Your task to perform on an android device: turn on bluetooth scan Image 0: 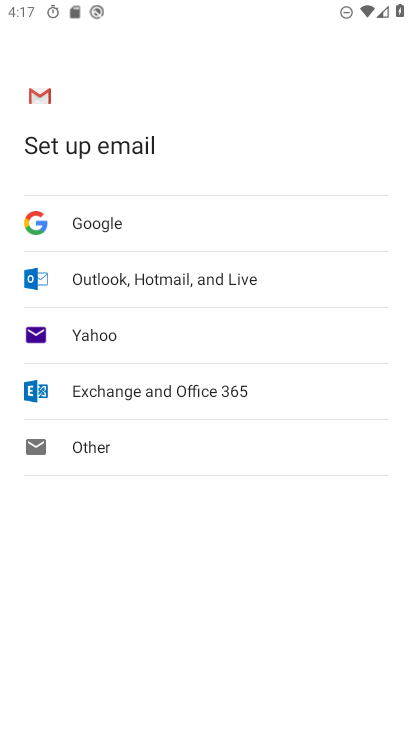
Step 0: press home button
Your task to perform on an android device: turn on bluetooth scan Image 1: 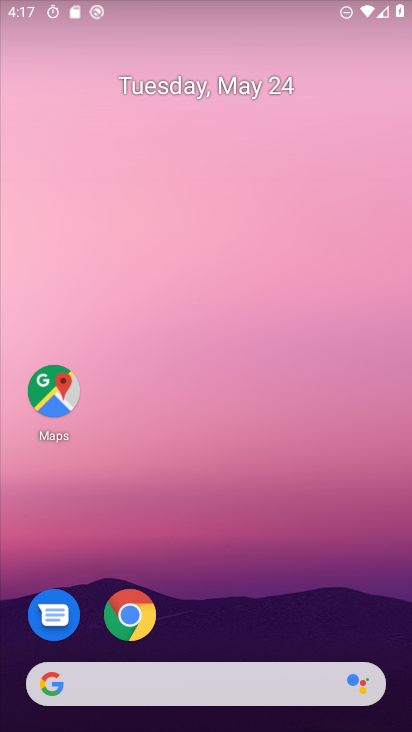
Step 1: drag from (239, 648) to (324, 180)
Your task to perform on an android device: turn on bluetooth scan Image 2: 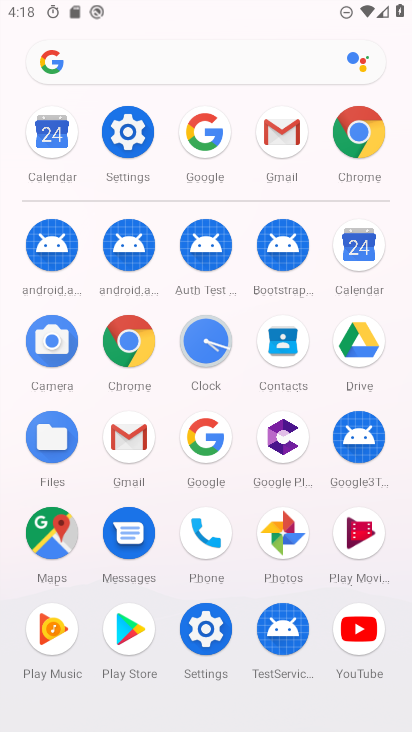
Step 2: click (115, 148)
Your task to perform on an android device: turn on bluetooth scan Image 3: 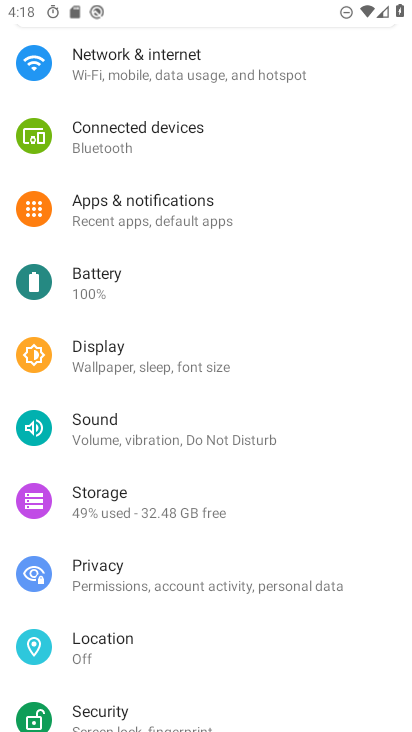
Step 3: click (160, 142)
Your task to perform on an android device: turn on bluetooth scan Image 4: 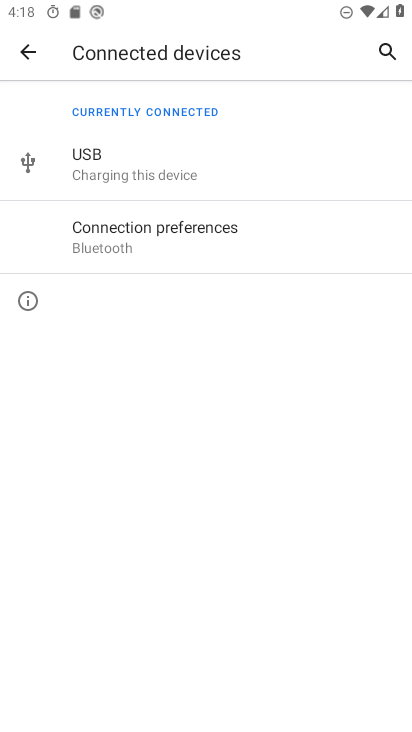
Step 4: click (191, 237)
Your task to perform on an android device: turn on bluetooth scan Image 5: 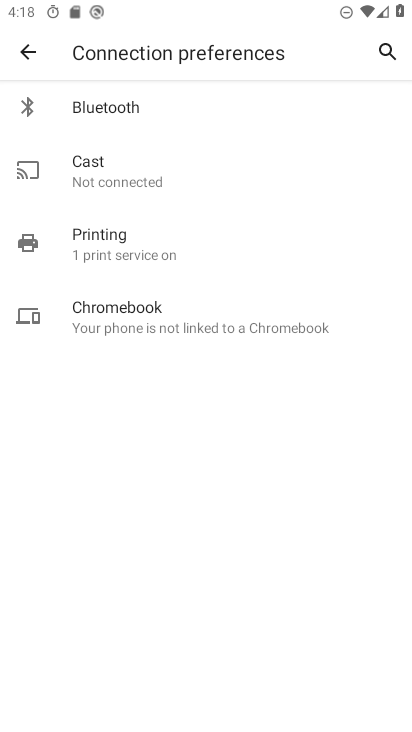
Step 5: click (156, 117)
Your task to perform on an android device: turn on bluetooth scan Image 6: 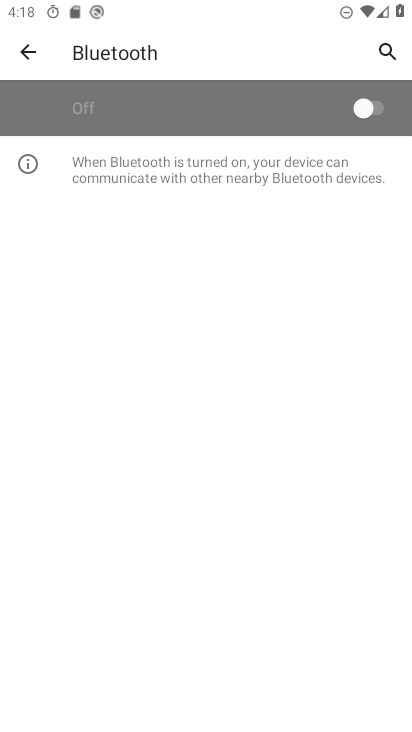
Step 6: click (171, 116)
Your task to perform on an android device: turn on bluetooth scan Image 7: 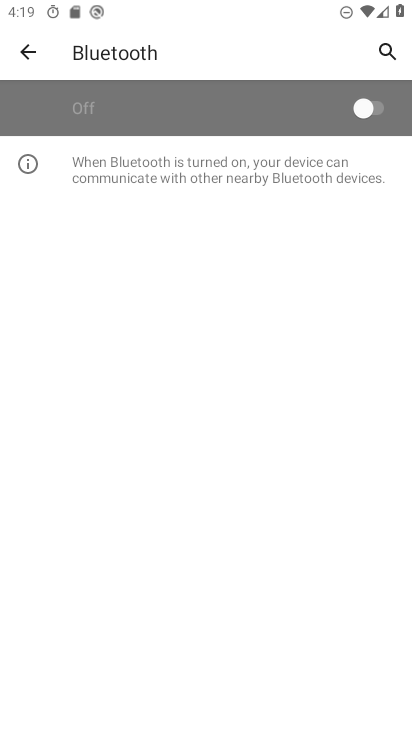
Step 7: task complete